Your task to perform on an android device: Add logitech g903 to the cart on walmart.com Image 0: 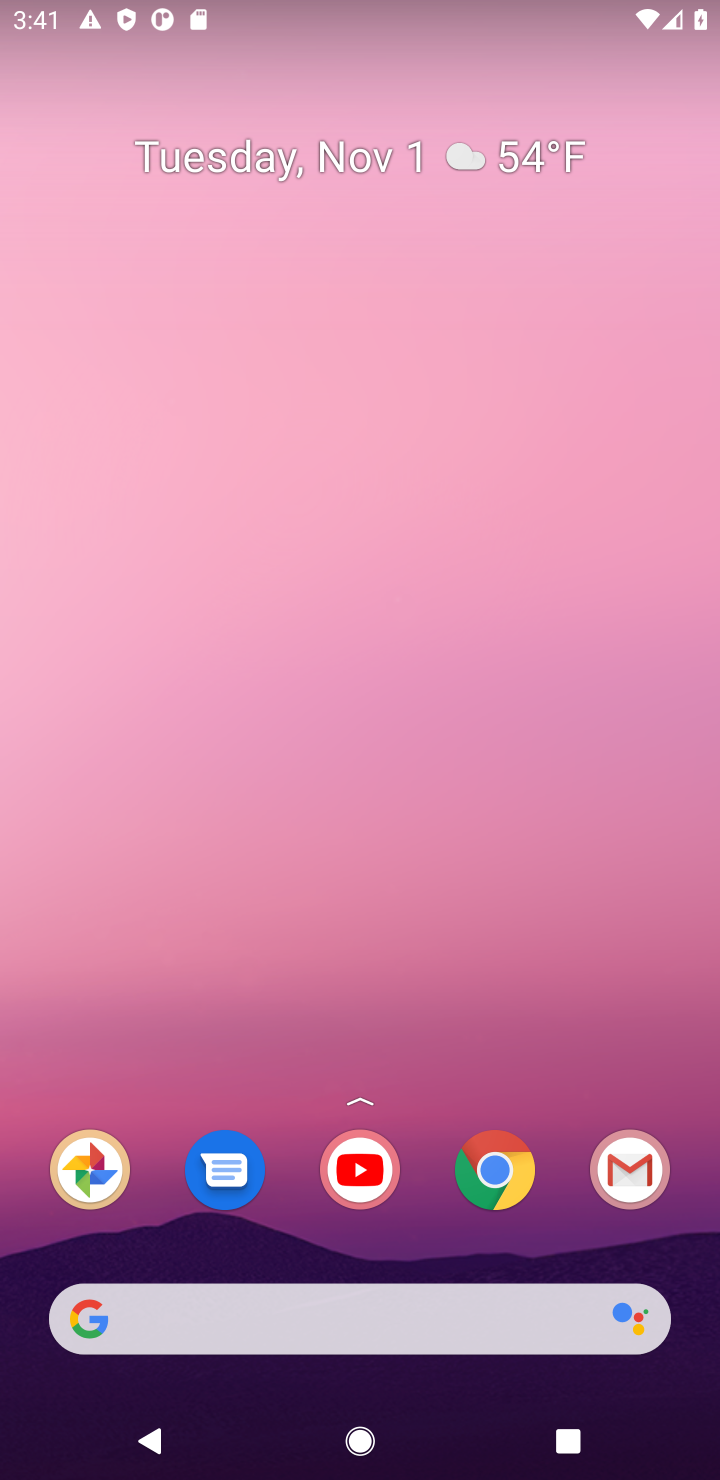
Step 0: drag from (455, 1381) to (467, 142)
Your task to perform on an android device: Add logitech g903 to the cart on walmart.com Image 1: 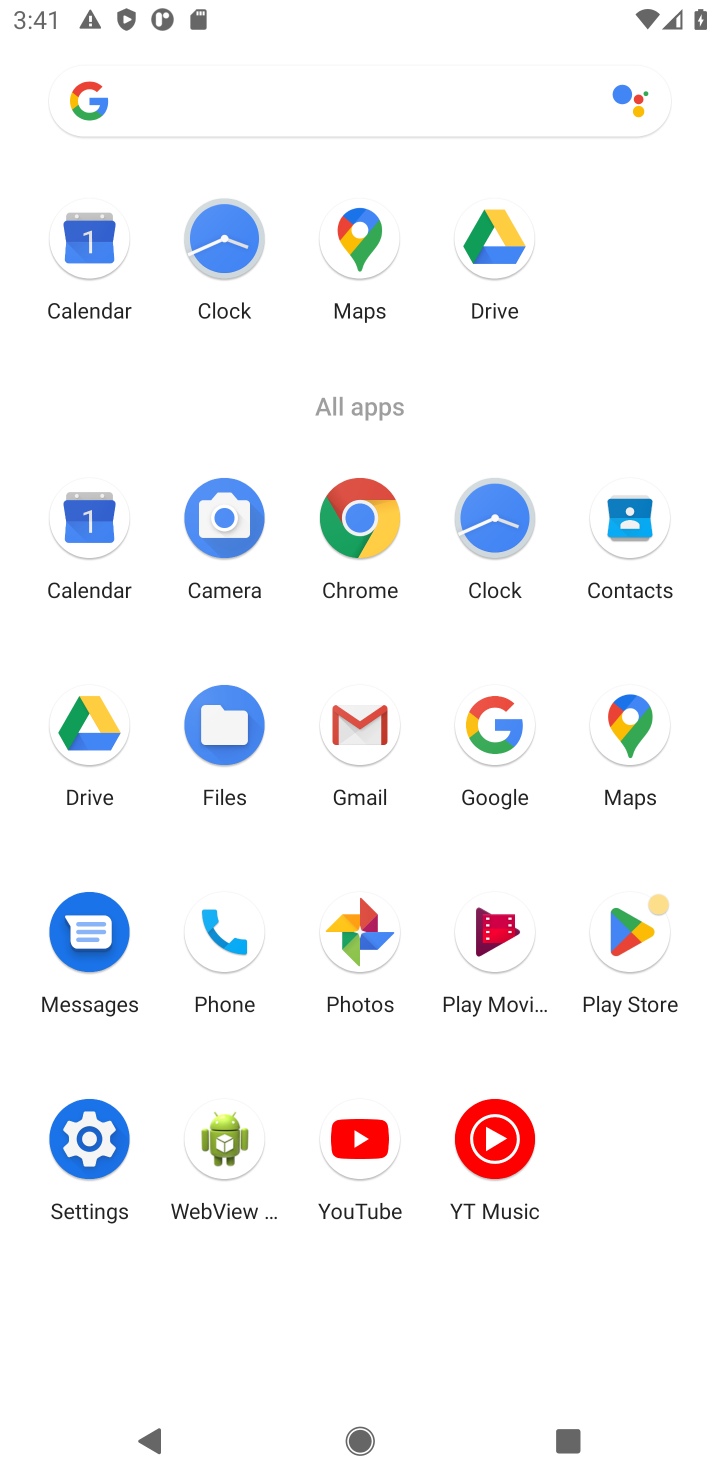
Step 1: click (362, 525)
Your task to perform on an android device: Add logitech g903 to the cart on walmart.com Image 2: 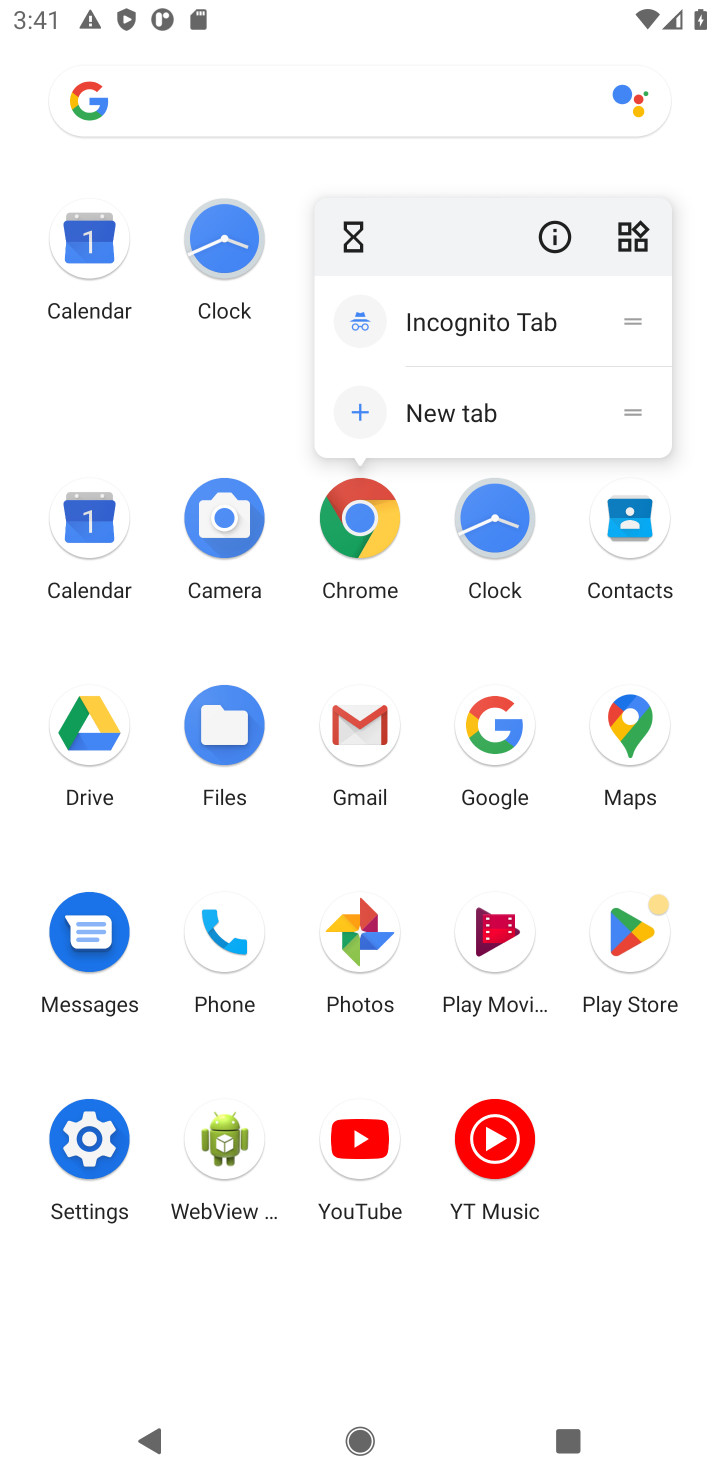
Step 2: click (363, 506)
Your task to perform on an android device: Add logitech g903 to the cart on walmart.com Image 3: 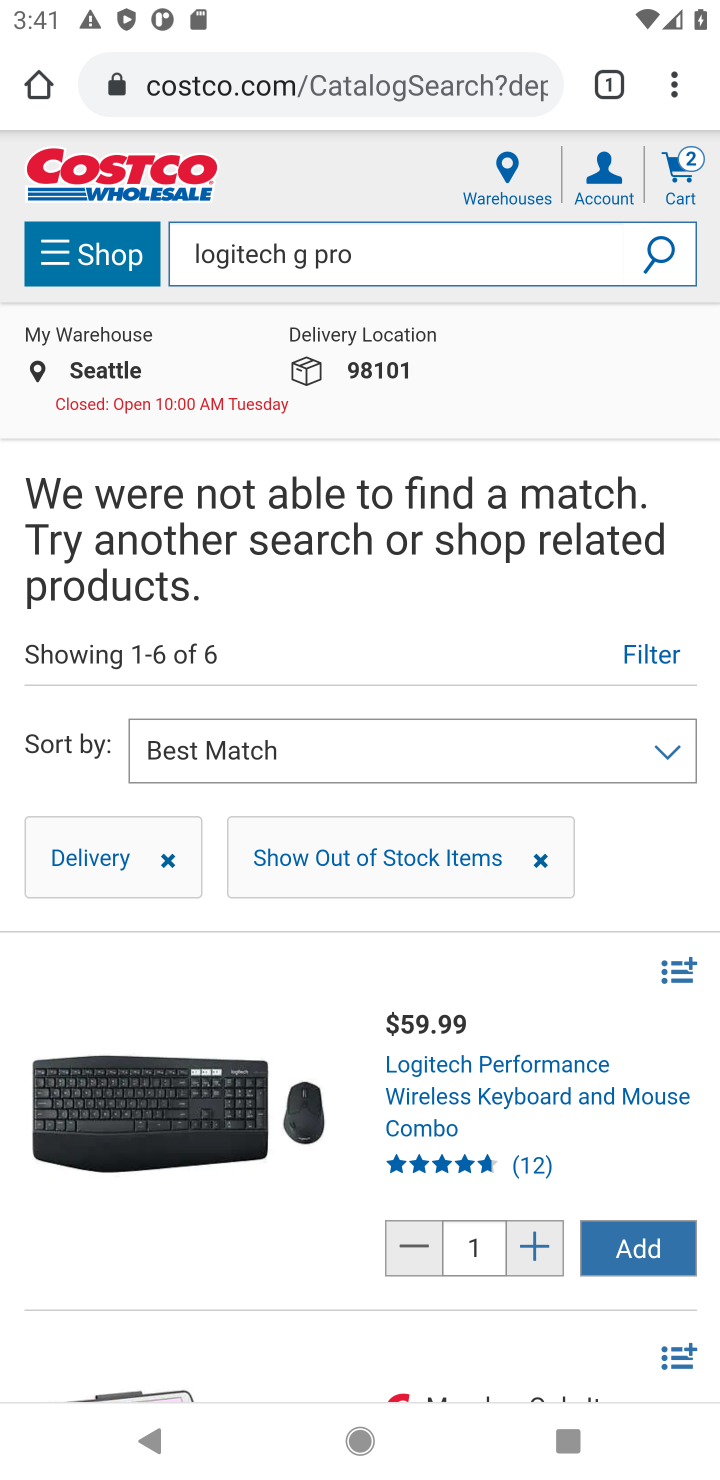
Step 3: click (241, 81)
Your task to perform on an android device: Add logitech g903 to the cart on walmart.com Image 4: 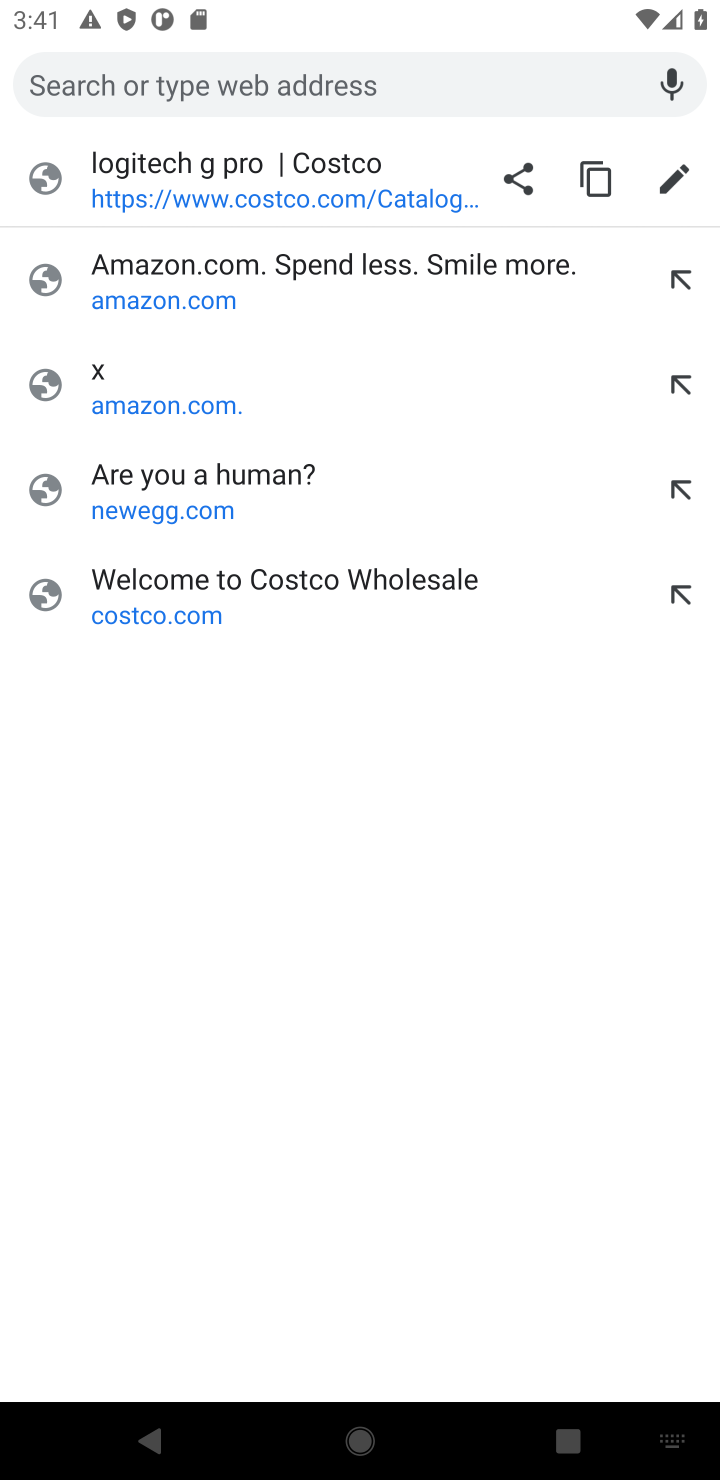
Step 4: type "walmart.com"
Your task to perform on an android device: Add logitech g903 to the cart on walmart.com Image 5: 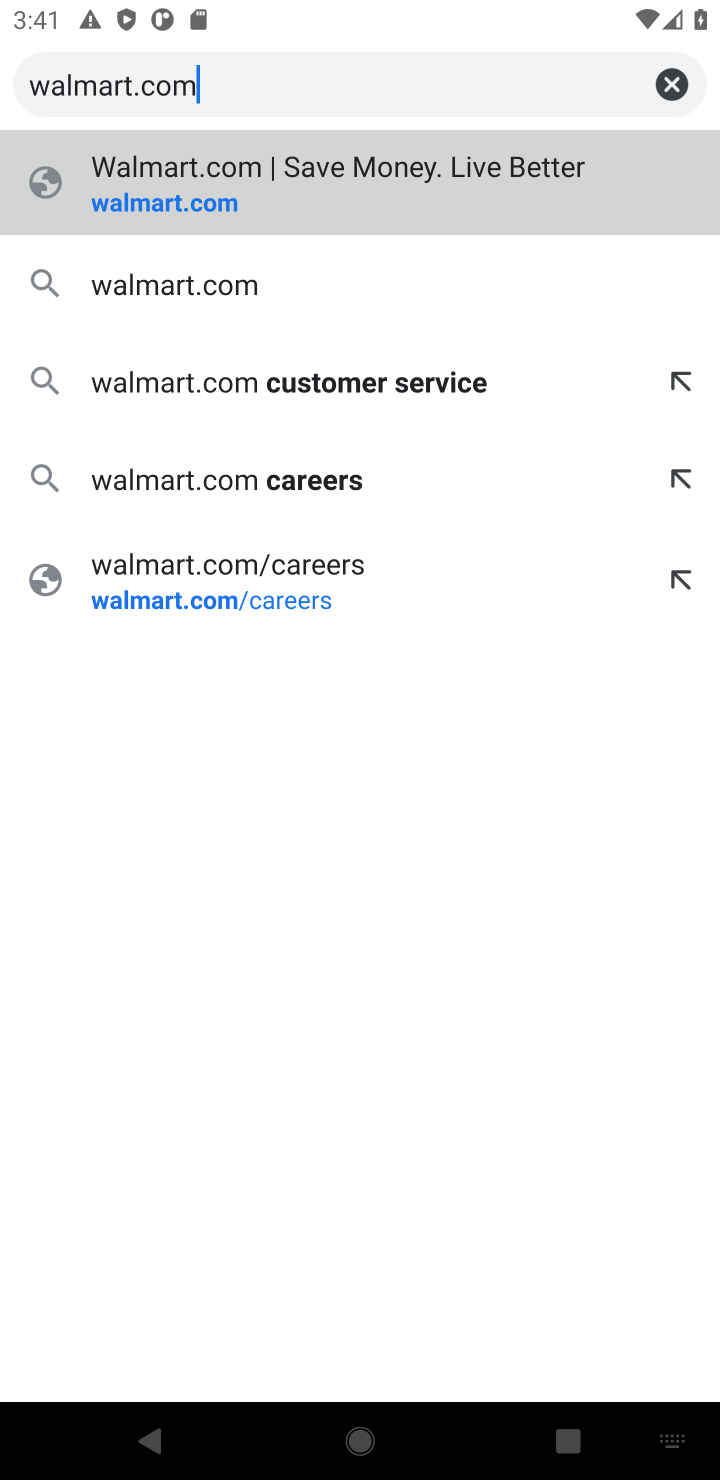
Step 5: click (176, 198)
Your task to perform on an android device: Add logitech g903 to the cart on walmart.com Image 6: 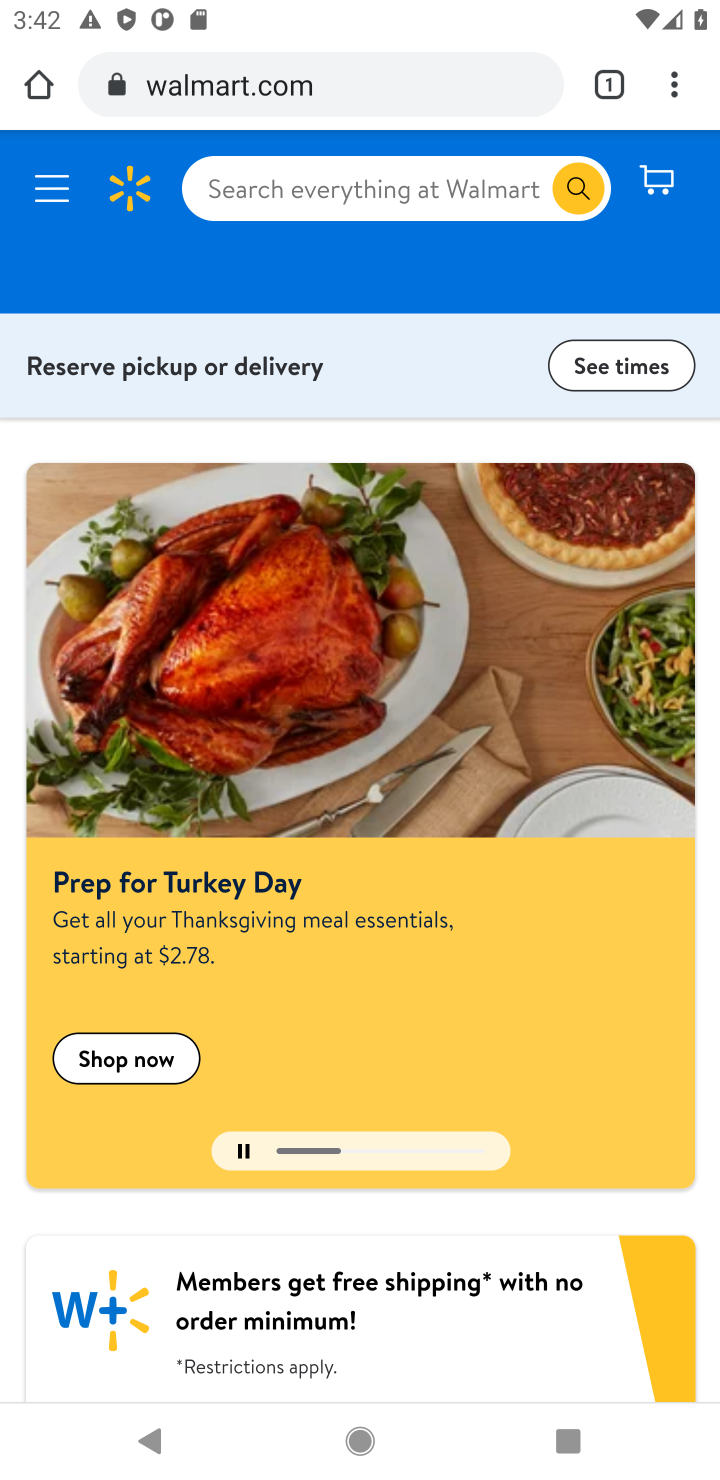
Step 6: click (435, 187)
Your task to perform on an android device: Add logitech g903 to the cart on walmart.com Image 7: 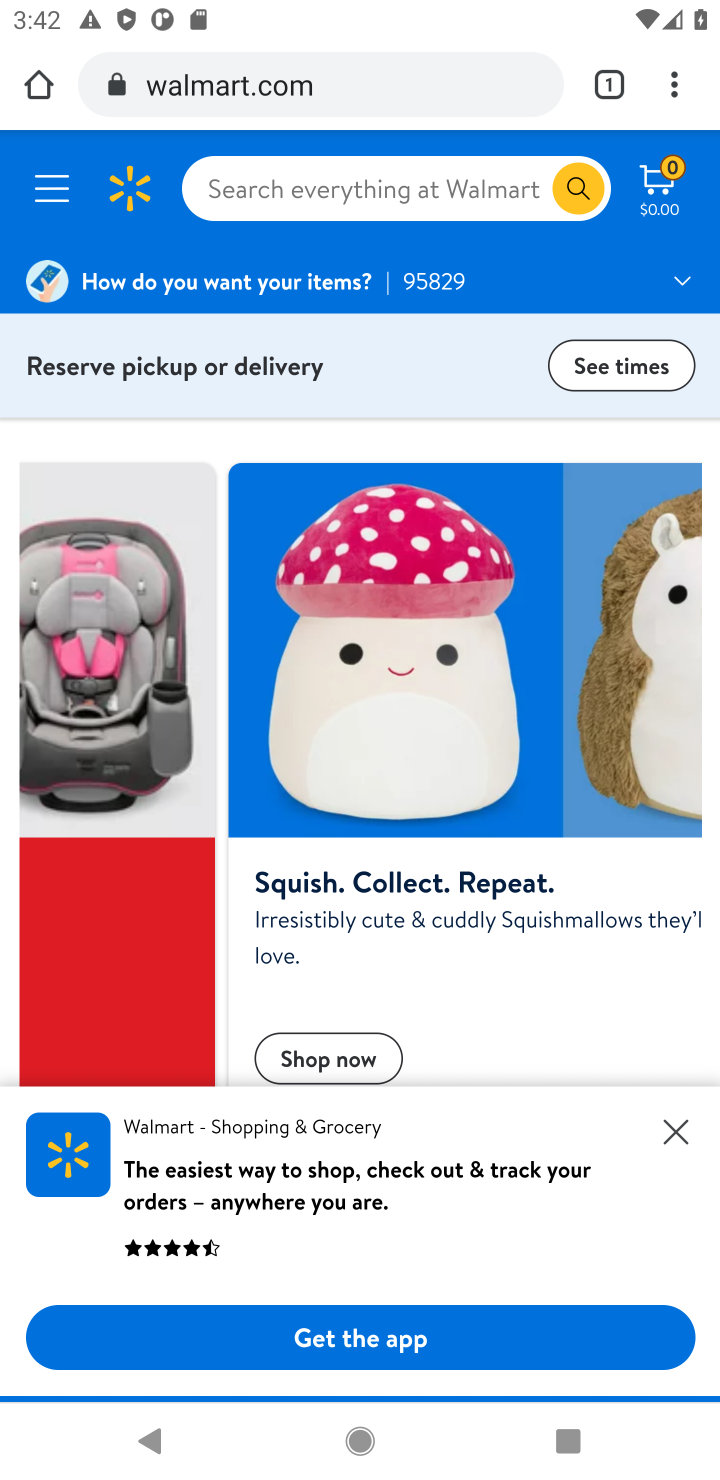
Step 7: click (248, 177)
Your task to perform on an android device: Add logitech g903 to the cart on walmart.com Image 8: 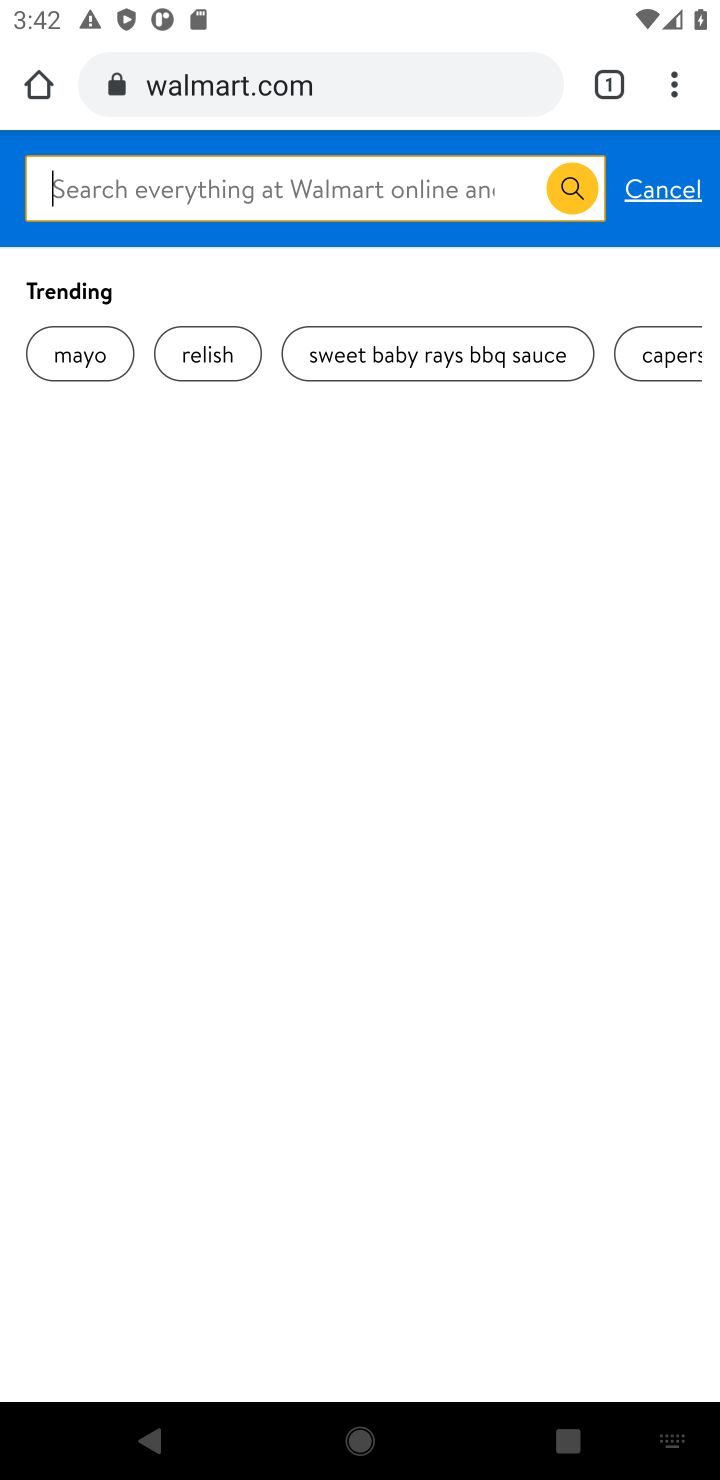
Step 8: type "logitech g903"
Your task to perform on an android device: Add logitech g903 to the cart on walmart.com Image 9: 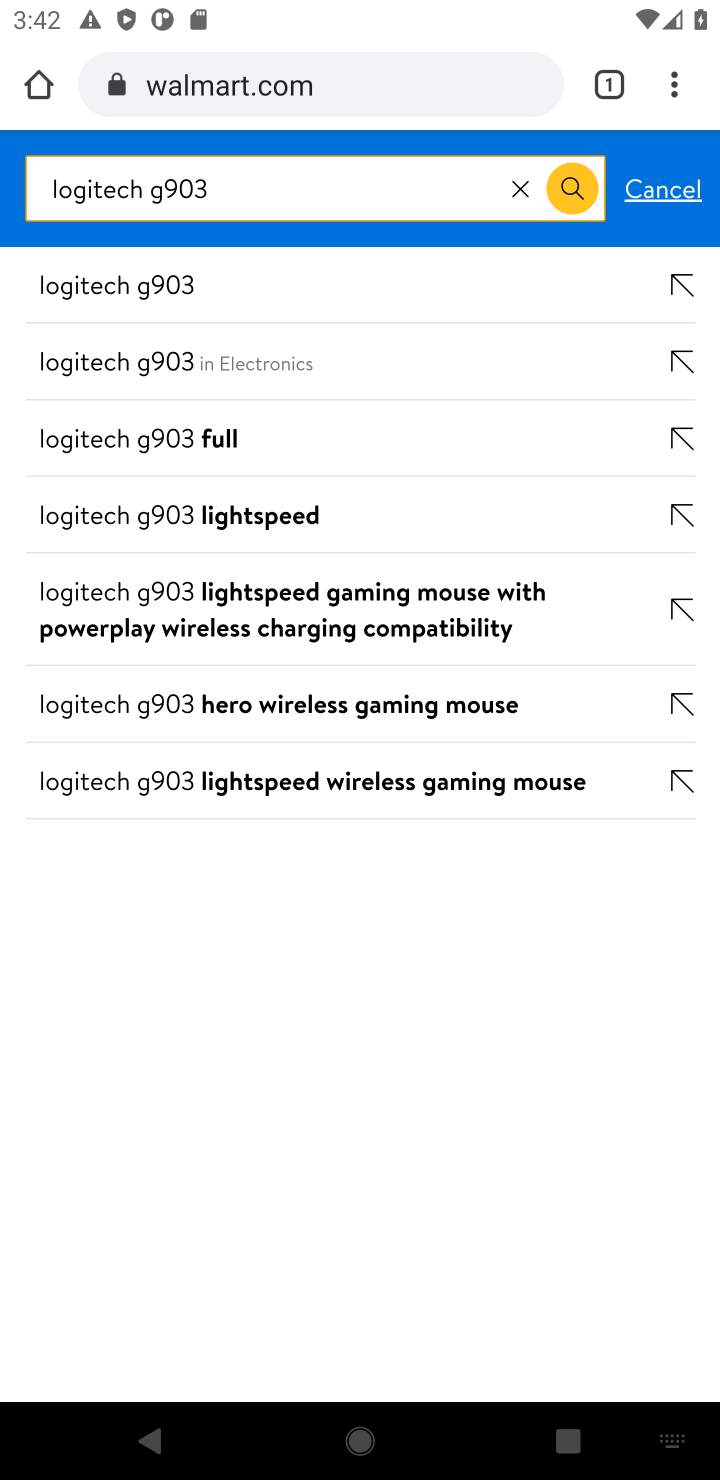
Step 9: click (578, 183)
Your task to perform on an android device: Add logitech g903 to the cart on walmart.com Image 10: 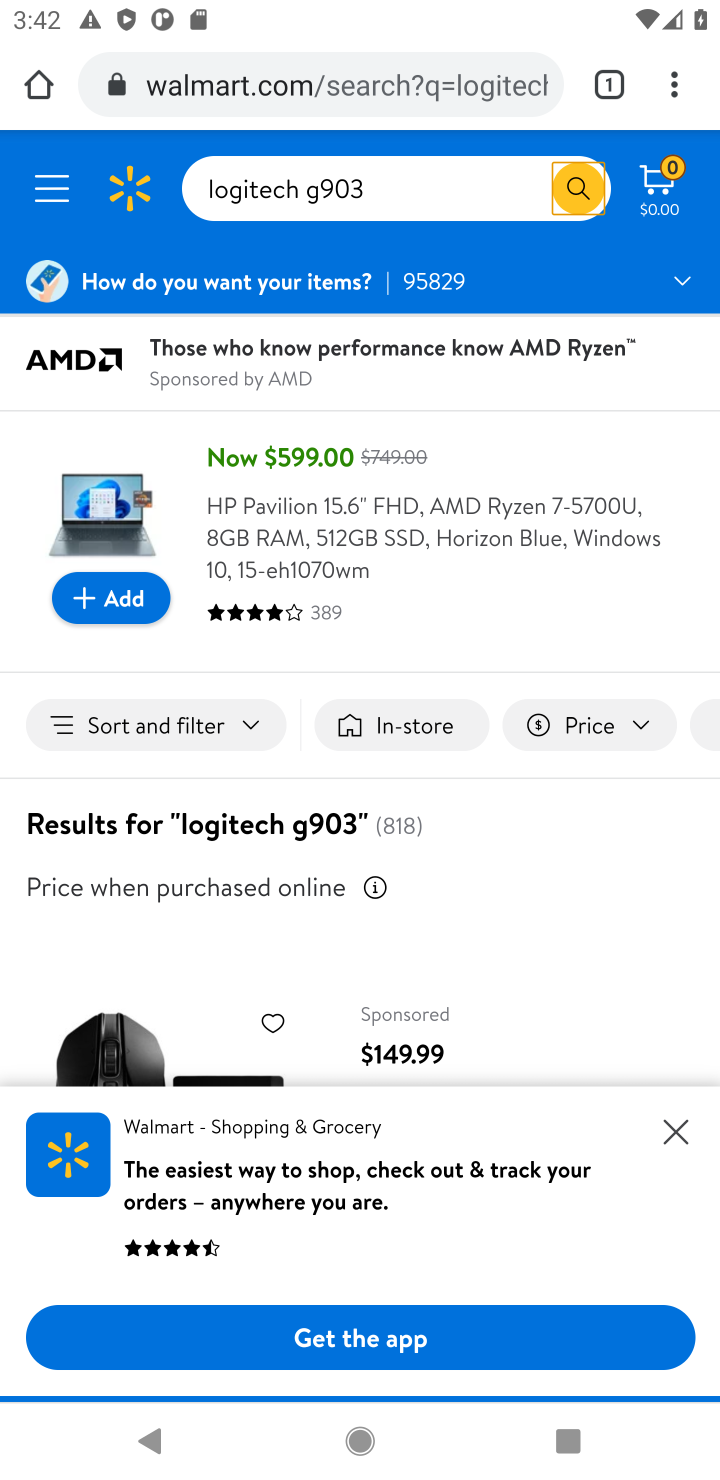
Step 10: drag from (478, 896) to (549, 890)
Your task to perform on an android device: Add logitech g903 to the cart on walmart.com Image 11: 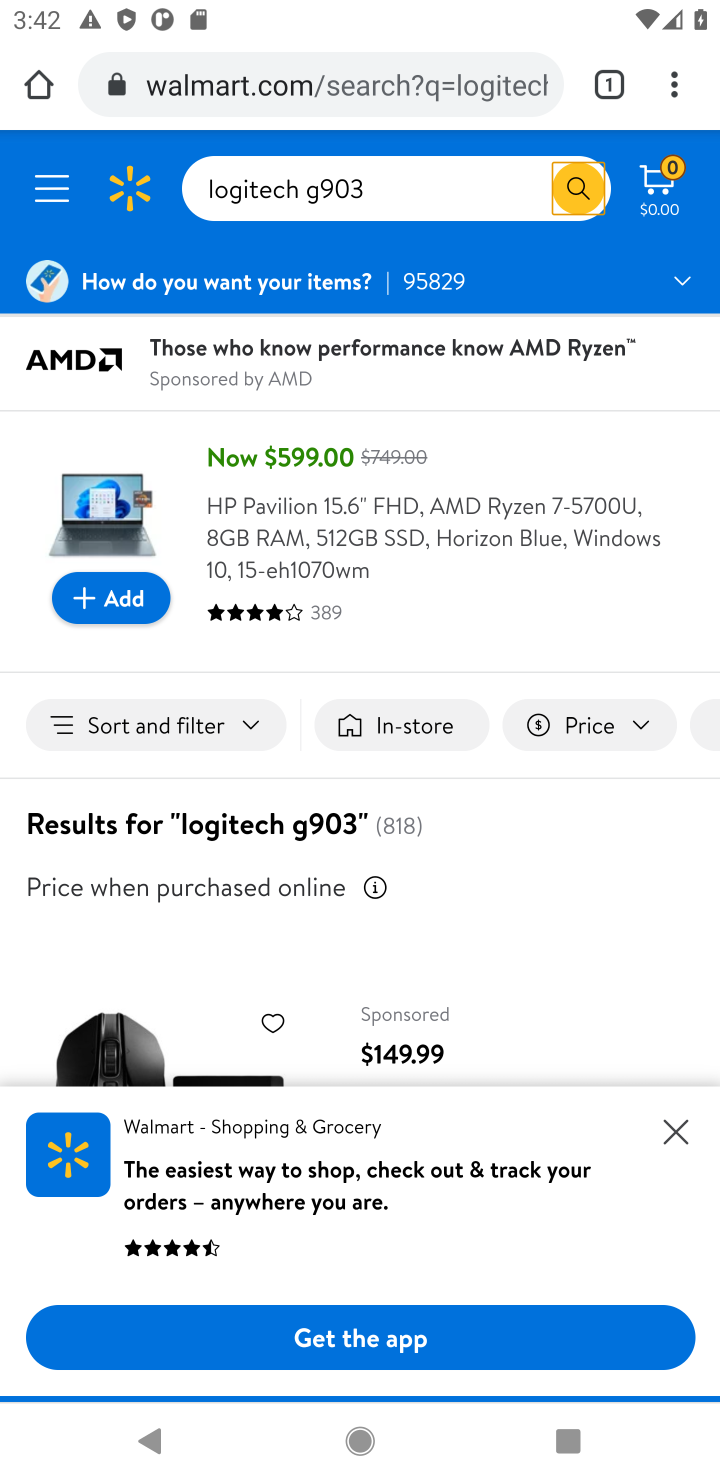
Step 11: click (251, 543)
Your task to perform on an android device: Add logitech g903 to the cart on walmart.com Image 12: 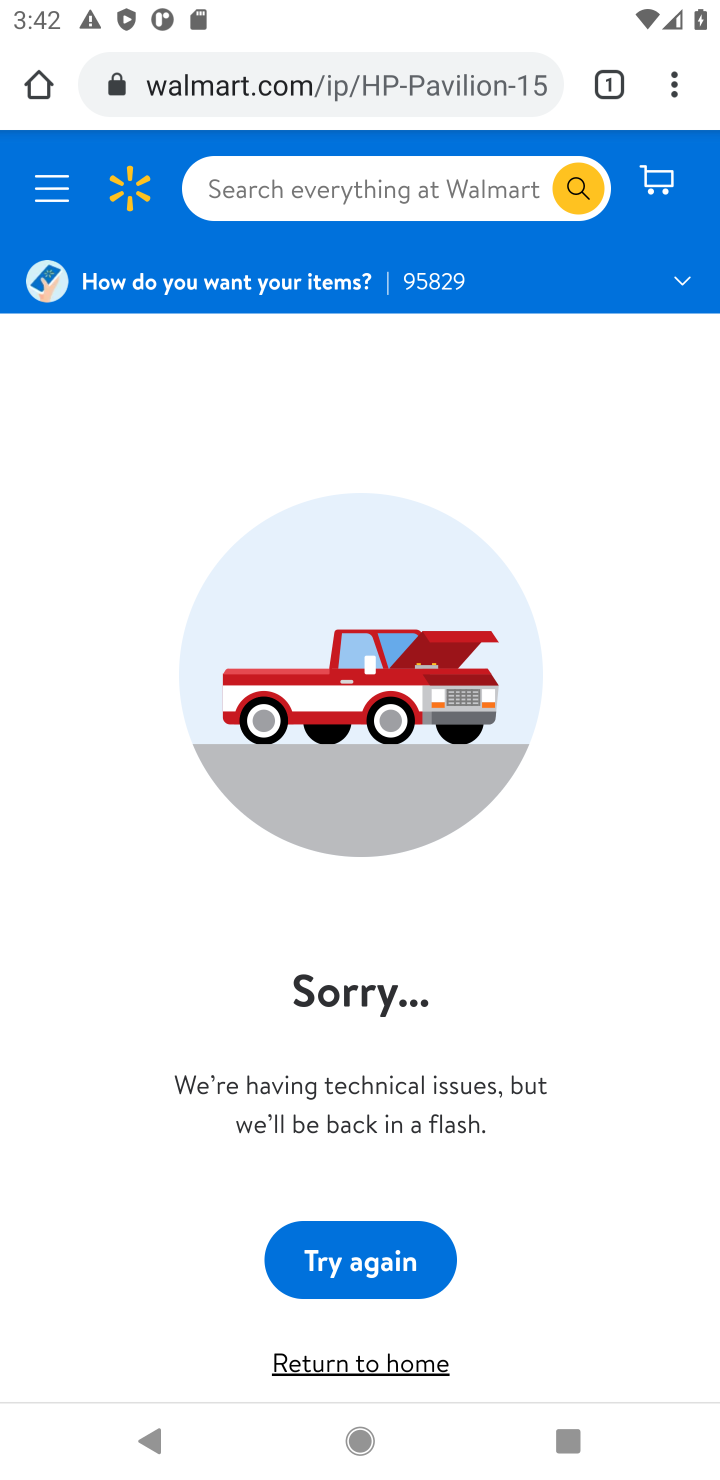
Step 12: press back button
Your task to perform on an android device: Add logitech g903 to the cart on walmart.com Image 13: 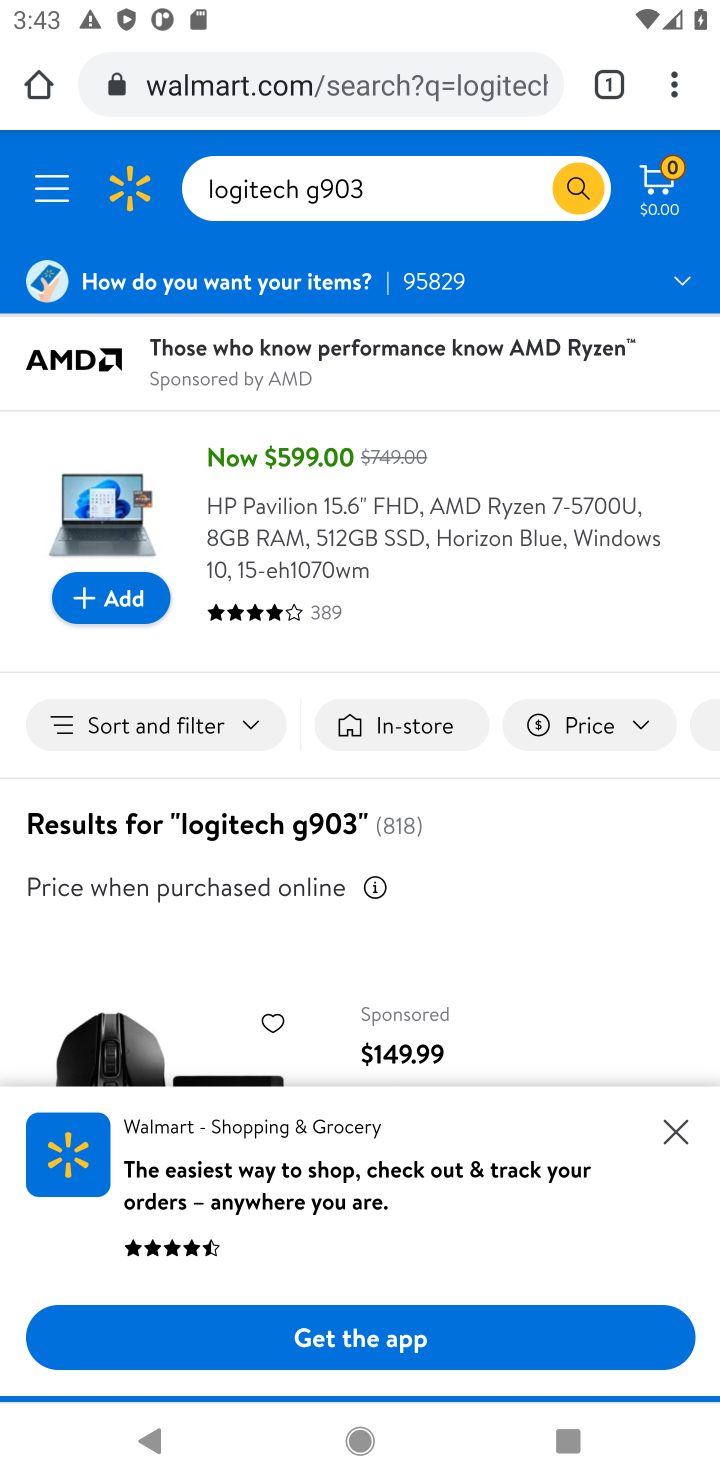
Step 13: click (284, 521)
Your task to perform on an android device: Add logitech g903 to the cart on walmart.com Image 14: 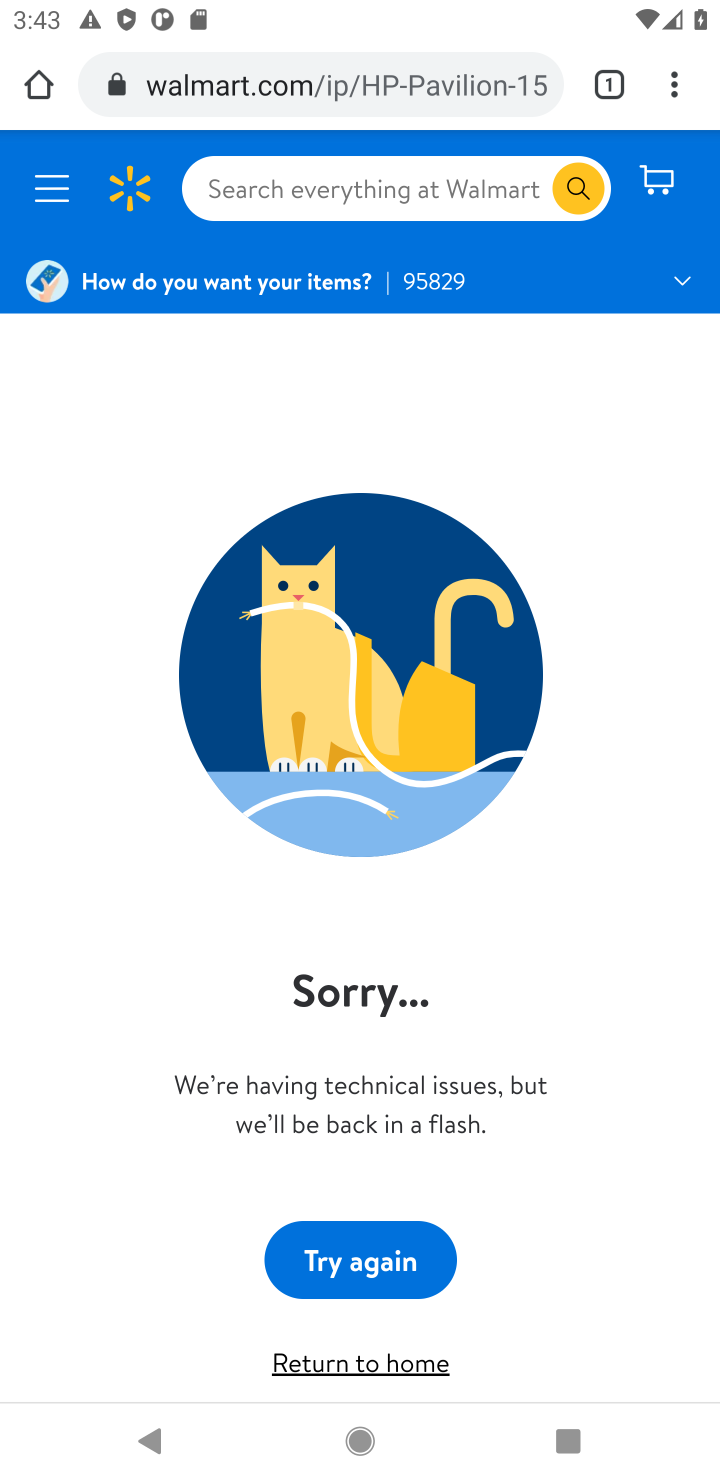
Step 14: task complete